Your task to perform on an android device: make emails show in primary in the gmail app Image 0: 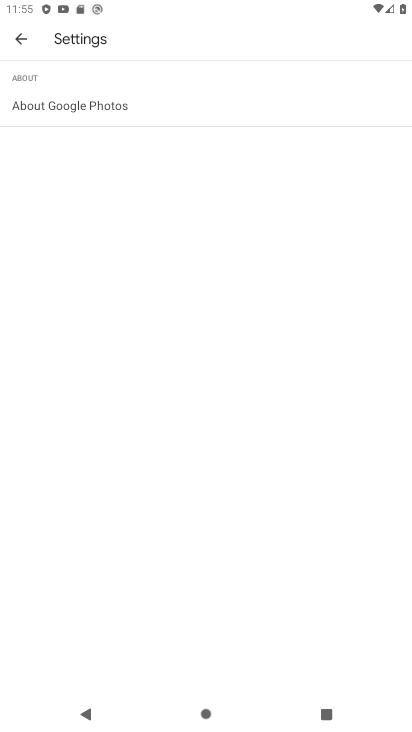
Step 0: press home button
Your task to perform on an android device: make emails show in primary in the gmail app Image 1: 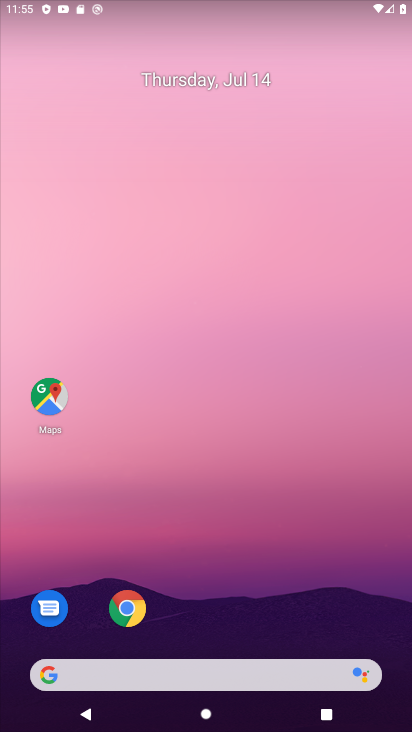
Step 1: drag from (263, 618) to (306, 121)
Your task to perform on an android device: make emails show in primary in the gmail app Image 2: 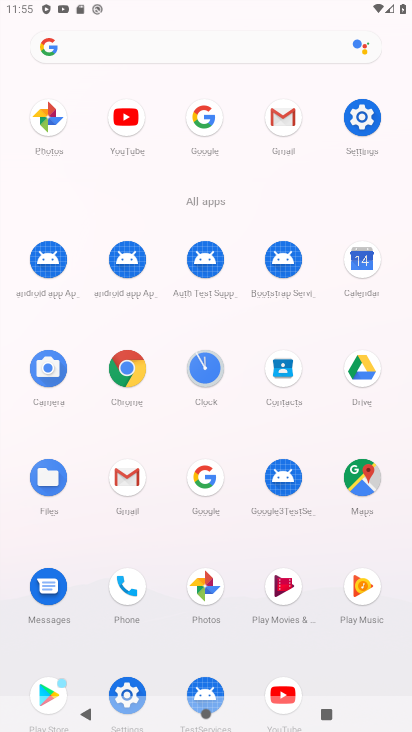
Step 2: click (287, 117)
Your task to perform on an android device: make emails show in primary in the gmail app Image 3: 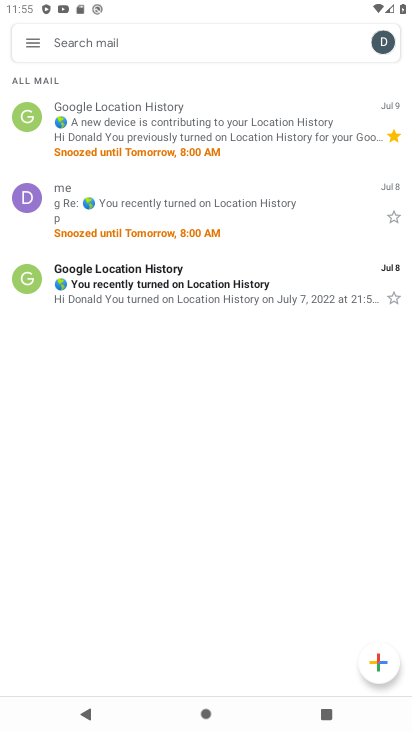
Step 3: click (35, 44)
Your task to perform on an android device: make emails show in primary in the gmail app Image 4: 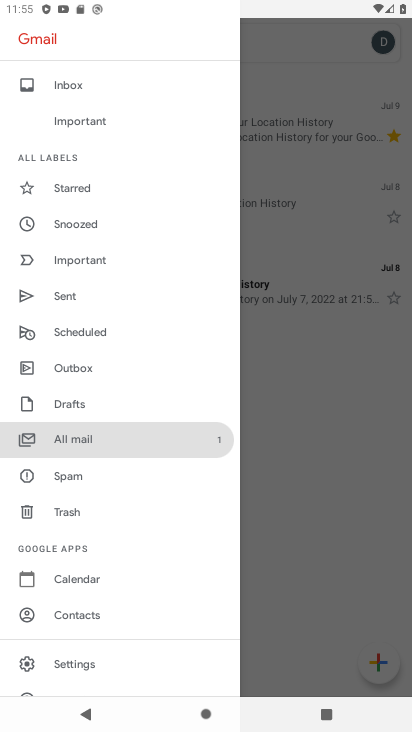
Step 4: click (79, 659)
Your task to perform on an android device: make emails show in primary in the gmail app Image 5: 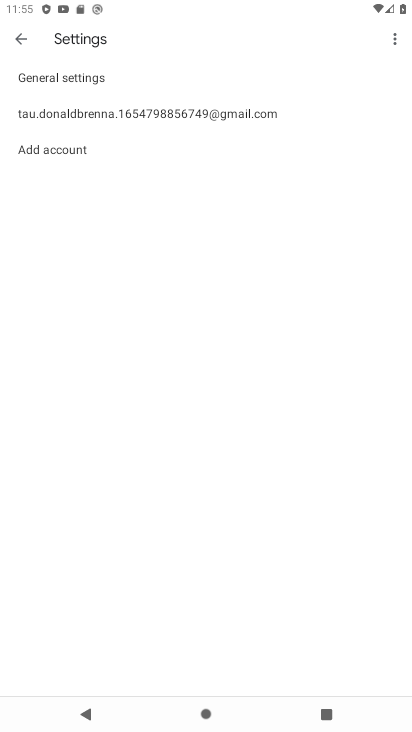
Step 5: click (90, 112)
Your task to perform on an android device: make emails show in primary in the gmail app Image 6: 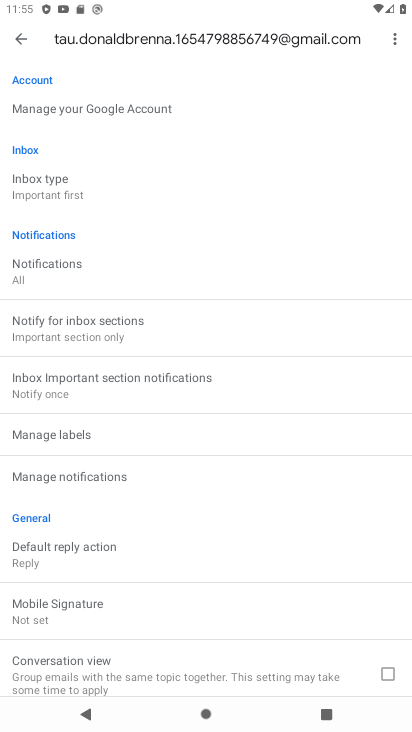
Step 6: drag from (113, 535) to (146, 676)
Your task to perform on an android device: make emails show in primary in the gmail app Image 7: 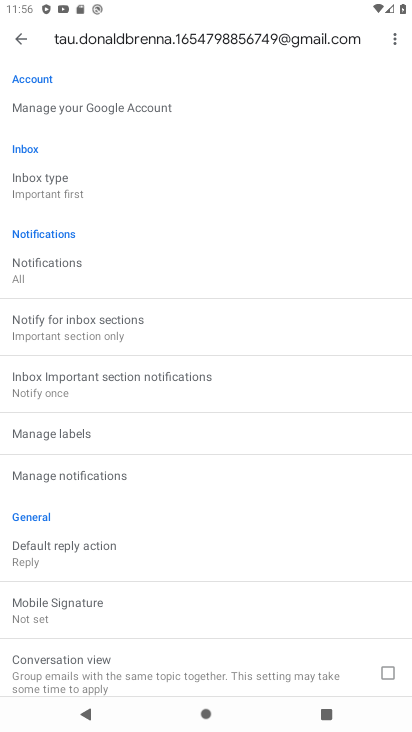
Step 7: drag from (64, 124) to (93, 490)
Your task to perform on an android device: make emails show in primary in the gmail app Image 8: 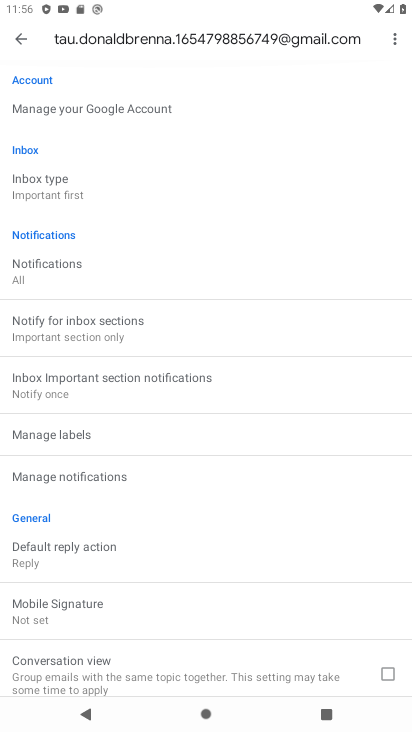
Step 8: click (59, 195)
Your task to perform on an android device: make emails show in primary in the gmail app Image 9: 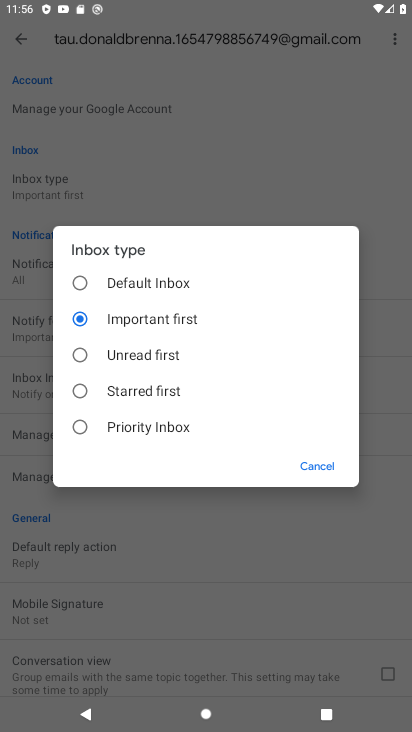
Step 9: click (79, 285)
Your task to perform on an android device: make emails show in primary in the gmail app Image 10: 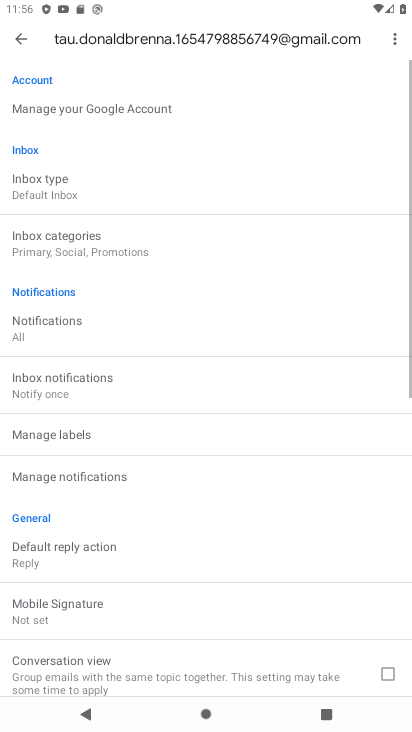
Step 10: click (52, 241)
Your task to perform on an android device: make emails show in primary in the gmail app Image 11: 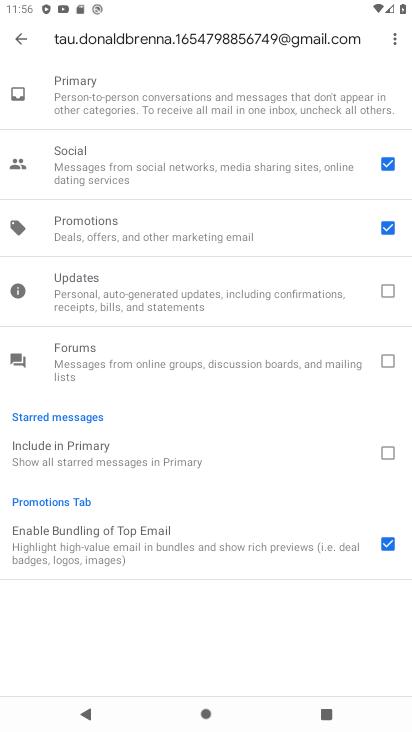
Step 11: drag from (391, 226) to (393, 163)
Your task to perform on an android device: make emails show in primary in the gmail app Image 12: 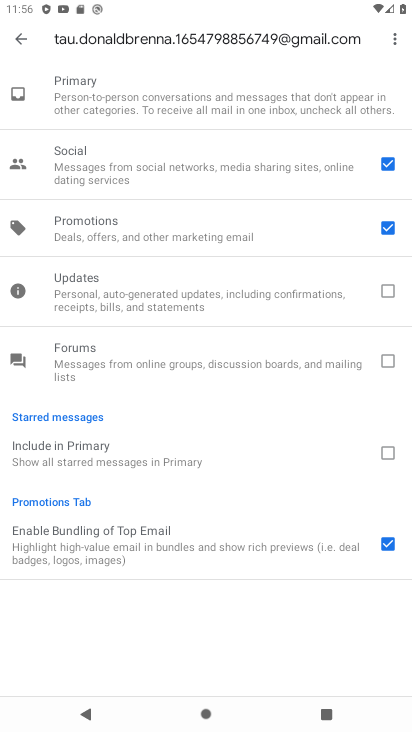
Step 12: click (387, 160)
Your task to perform on an android device: make emails show in primary in the gmail app Image 13: 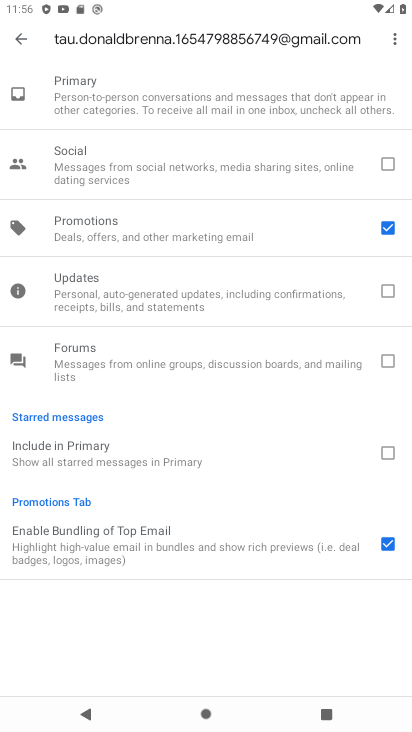
Step 13: click (385, 222)
Your task to perform on an android device: make emails show in primary in the gmail app Image 14: 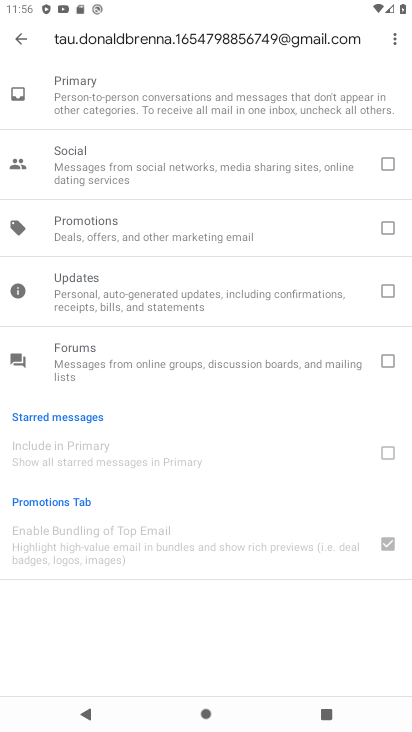
Step 14: task complete